Your task to perform on an android device: Open my contact list Image 0: 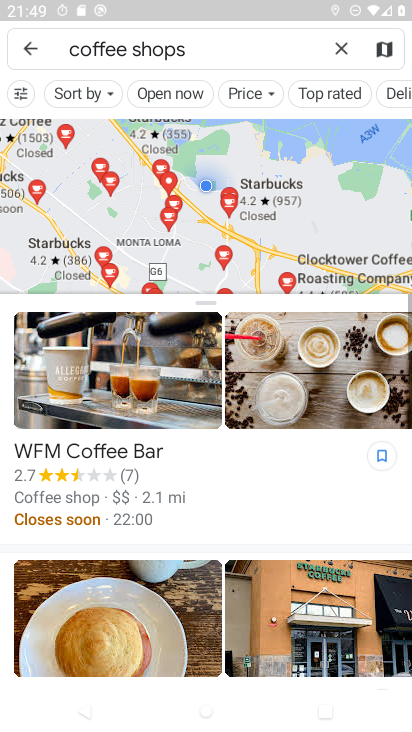
Step 0: press home button
Your task to perform on an android device: Open my contact list Image 1: 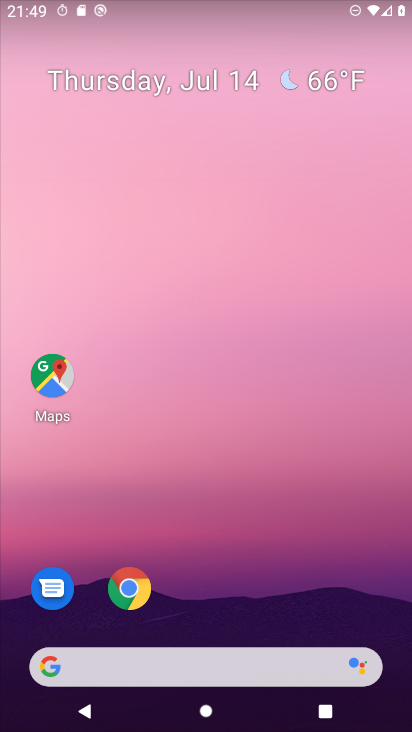
Step 1: drag from (349, 603) to (362, 77)
Your task to perform on an android device: Open my contact list Image 2: 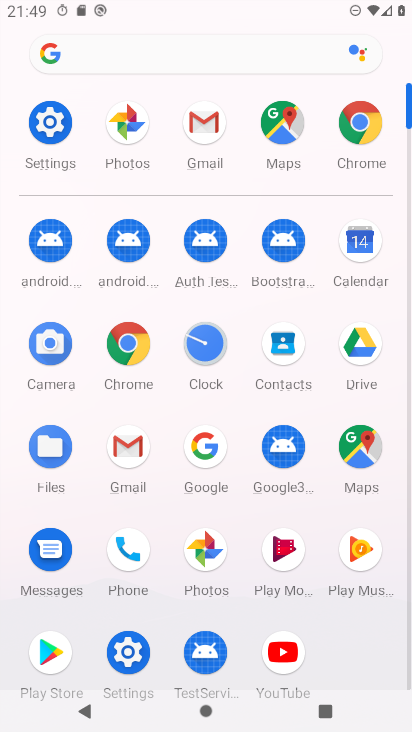
Step 2: click (276, 353)
Your task to perform on an android device: Open my contact list Image 3: 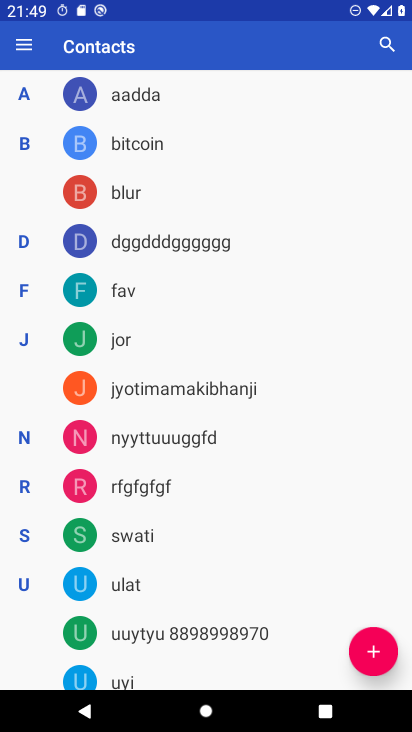
Step 3: task complete